Your task to perform on an android device: turn off notifications in google photos Image 0: 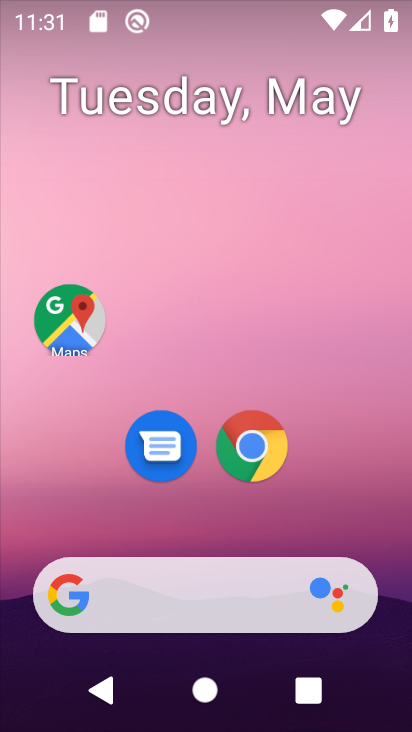
Step 0: drag from (269, 545) to (269, 332)
Your task to perform on an android device: turn off notifications in google photos Image 1: 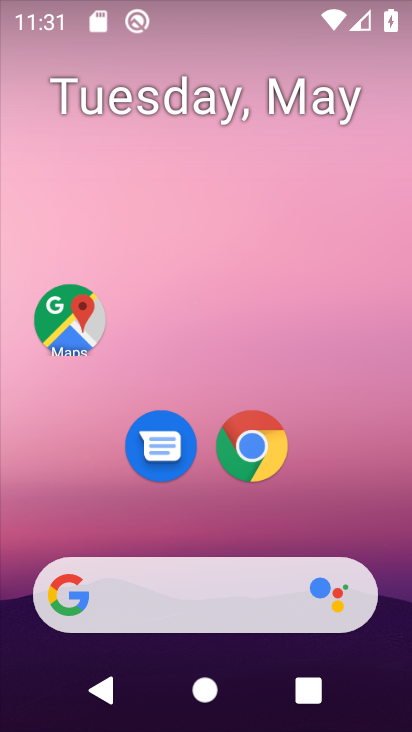
Step 1: drag from (405, 605) to (382, 221)
Your task to perform on an android device: turn off notifications in google photos Image 2: 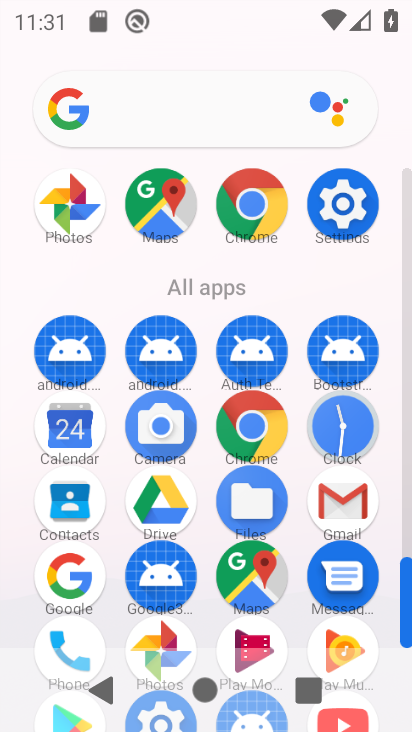
Step 2: drag from (408, 619) to (310, 728)
Your task to perform on an android device: turn off notifications in google photos Image 3: 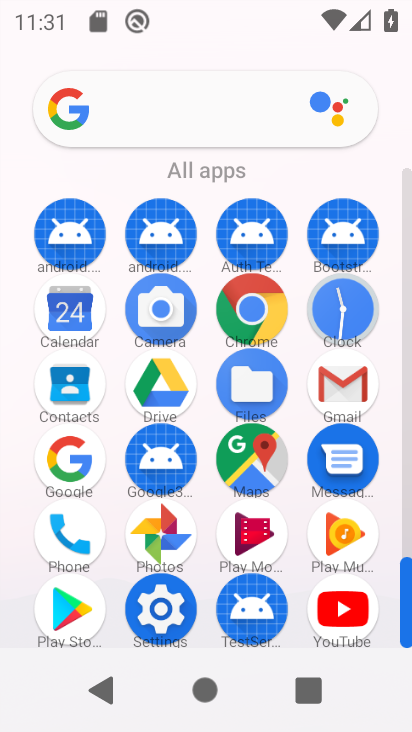
Step 3: click (164, 524)
Your task to perform on an android device: turn off notifications in google photos Image 4: 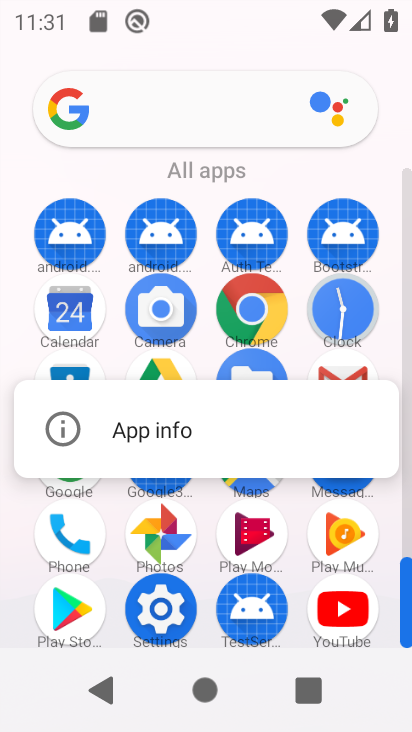
Step 4: click (194, 418)
Your task to perform on an android device: turn off notifications in google photos Image 5: 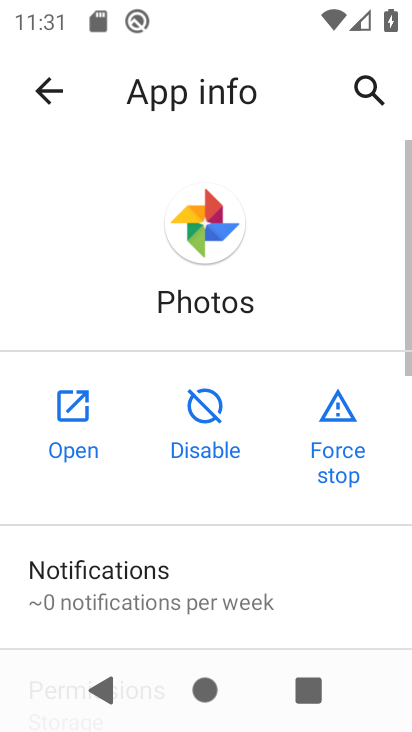
Step 5: drag from (302, 587) to (331, 464)
Your task to perform on an android device: turn off notifications in google photos Image 6: 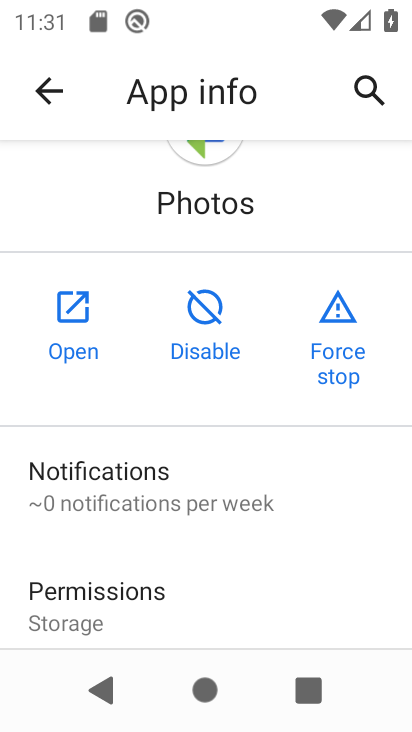
Step 6: click (121, 507)
Your task to perform on an android device: turn off notifications in google photos Image 7: 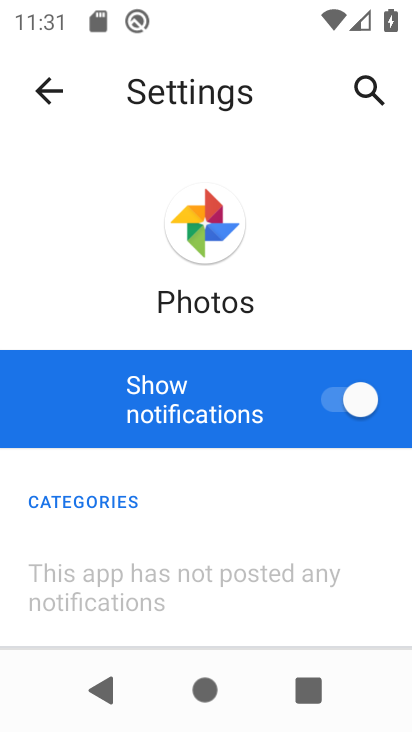
Step 7: click (243, 416)
Your task to perform on an android device: turn off notifications in google photos Image 8: 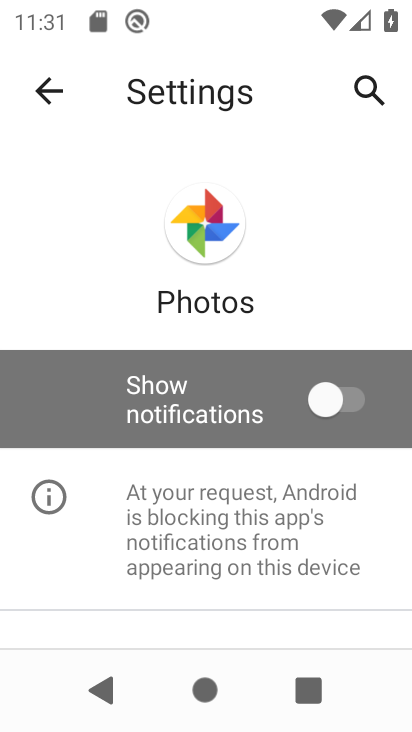
Step 8: task complete